Your task to perform on an android device: Open Android settings Image 0: 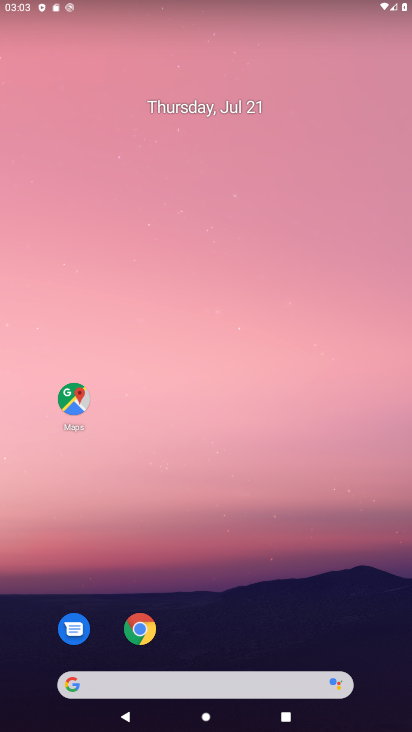
Step 0: drag from (204, 620) to (122, 211)
Your task to perform on an android device: Open Android settings Image 1: 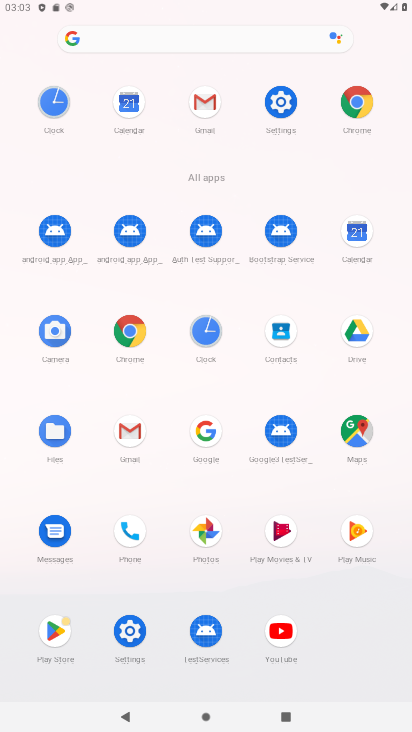
Step 1: click (267, 106)
Your task to perform on an android device: Open Android settings Image 2: 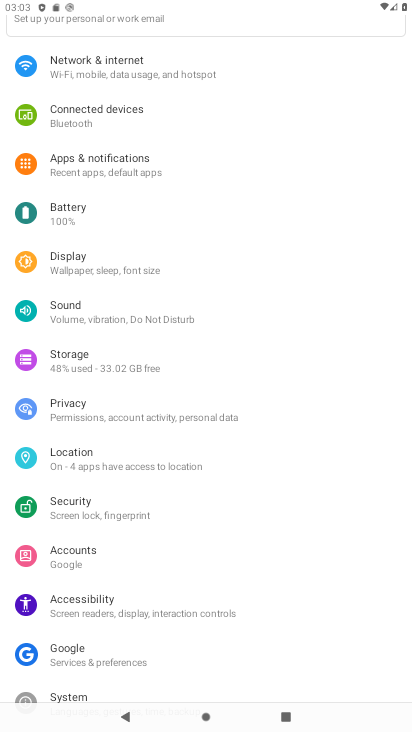
Step 2: drag from (101, 624) to (2, 155)
Your task to perform on an android device: Open Android settings Image 3: 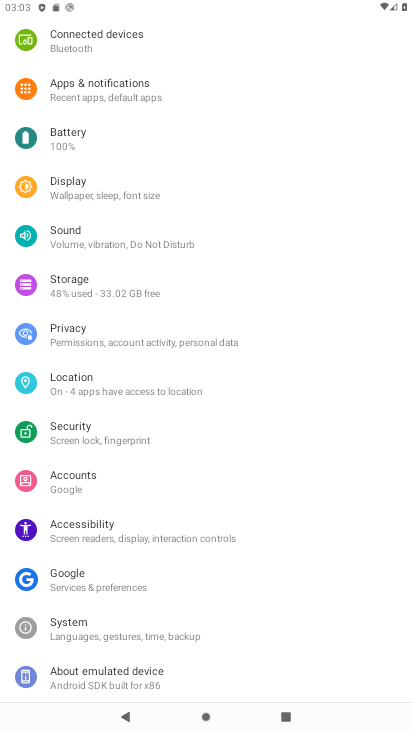
Step 3: click (102, 678)
Your task to perform on an android device: Open Android settings Image 4: 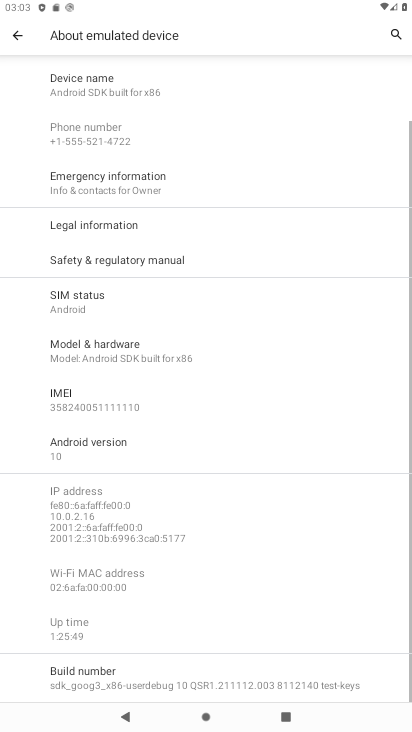
Step 4: click (93, 442)
Your task to perform on an android device: Open Android settings Image 5: 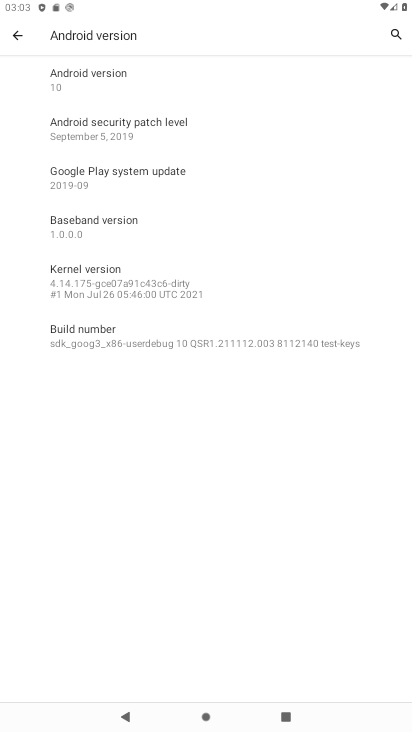
Step 5: task complete